Your task to perform on an android device: add a contact in the contacts app Image 0: 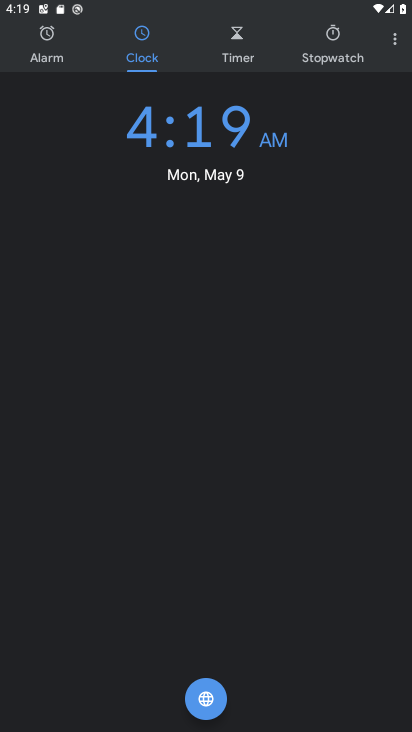
Step 0: press home button
Your task to perform on an android device: add a contact in the contacts app Image 1: 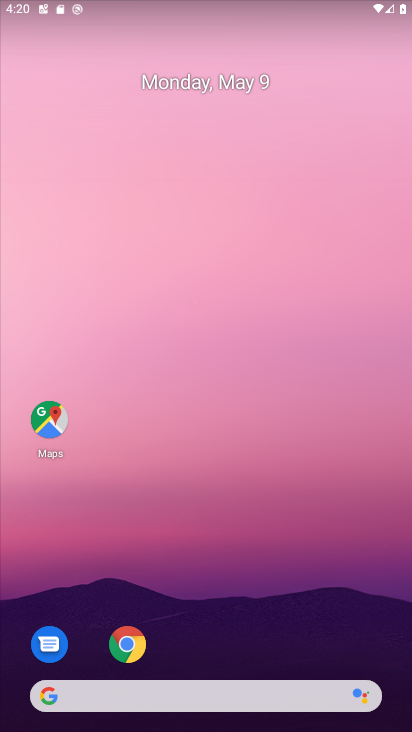
Step 1: drag from (229, 583) to (246, 4)
Your task to perform on an android device: add a contact in the contacts app Image 2: 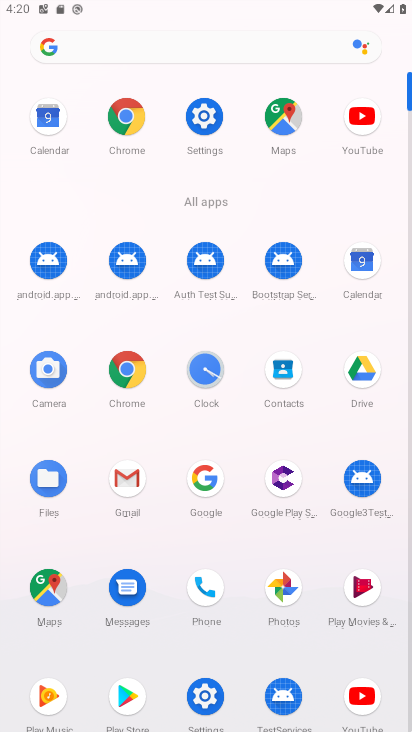
Step 2: click (283, 365)
Your task to perform on an android device: add a contact in the contacts app Image 3: 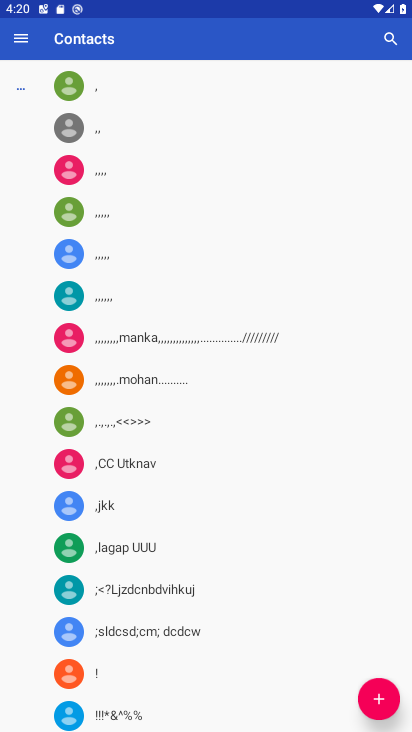
Step 3: click (379, 699)
Your task to perform on an android device: add a contact in the contacts app Image 4: 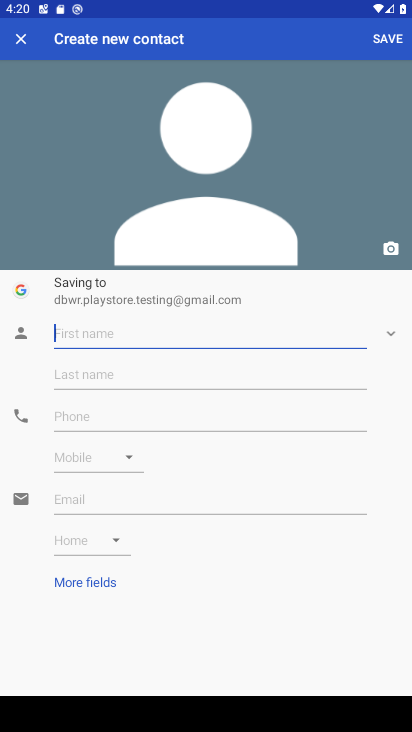
Step 4: click (114, 330)
Your task to perform on an android device: add a contact in the contacts app Image 5: 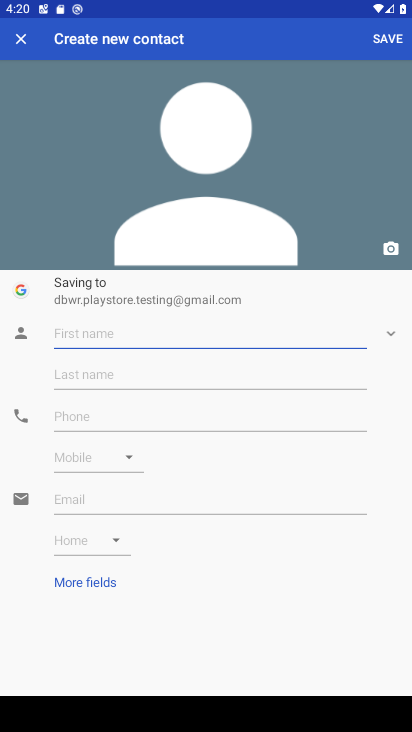
Step 5: type "Lavanya"
Your task to perform on an android device: add a contact in the contacts app Image 6: 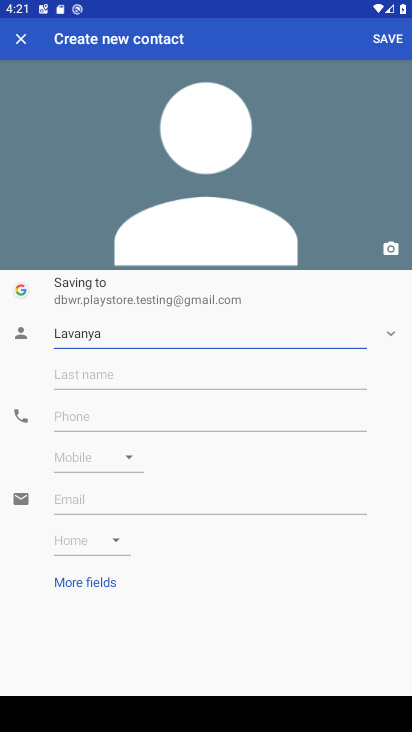
Step 6: click (236, 374)
Your task to perform on an android device: add a contact in the contacts app Image 7: 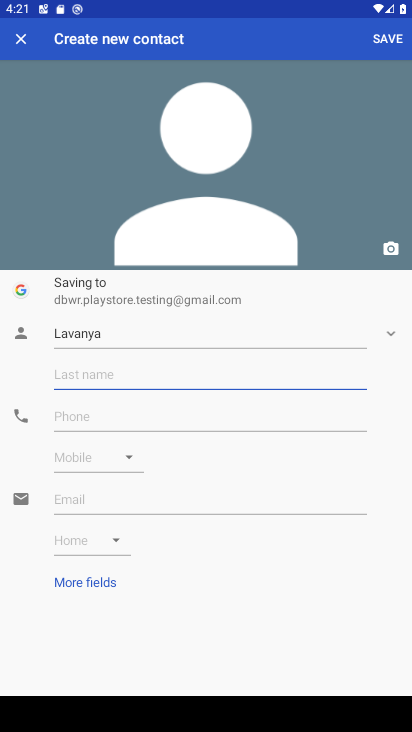
Step 7: type "Katappa"
Your task to perform on an android device: add a contact in the contacts app Image 8: 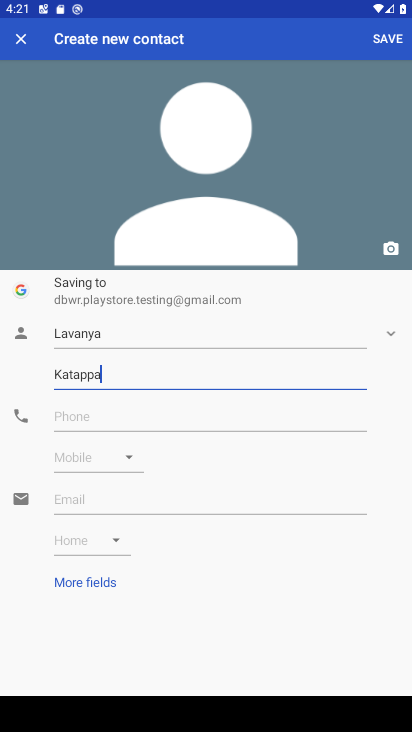
Step 8: click (211, 417)
Your task to perform on an android device: add a contact in the contacts app Image 9: 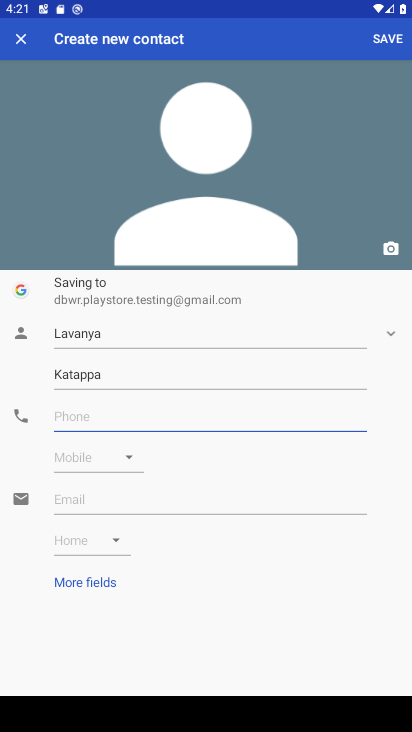
Step 9: type "09988776633"
Your task to perform on an android device: add a contact in the contacts app Image 10: 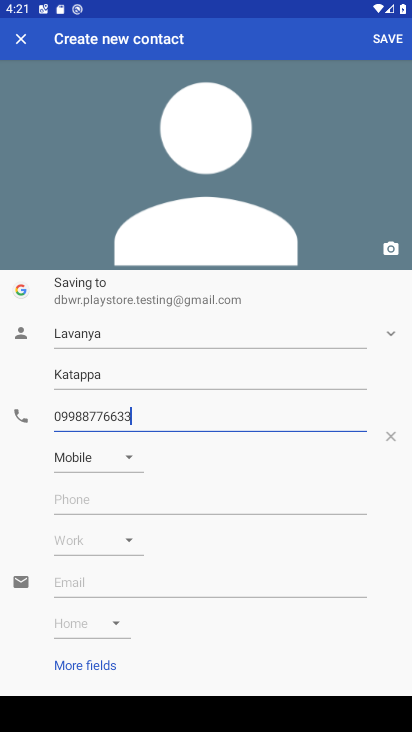
Step 10: click (392, 41)
Your task to perform on an android device: add a contact in the contacts app Image 11: 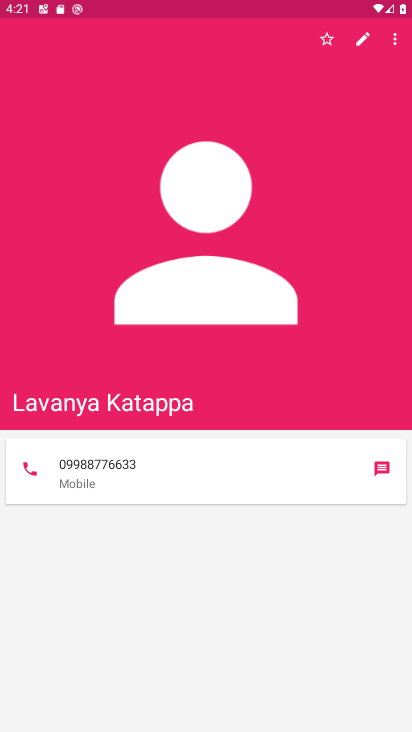
Step 11: task complete